Your task to perform on an android device: Open maps Image 0: 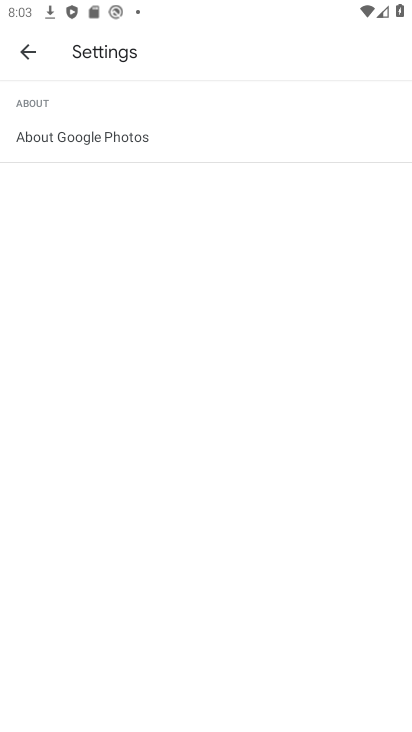
Step 0: press home button
Your task to perform on an android device: Open maps Image 1: 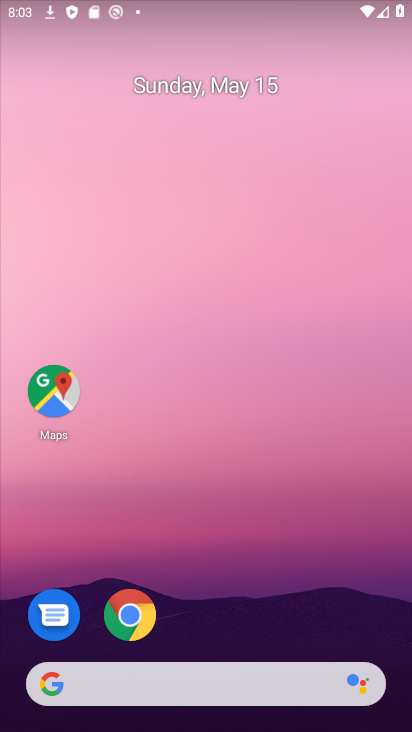
Step 1: click (76, 369)
Your task to perform on an android device: Open maps Image 2: 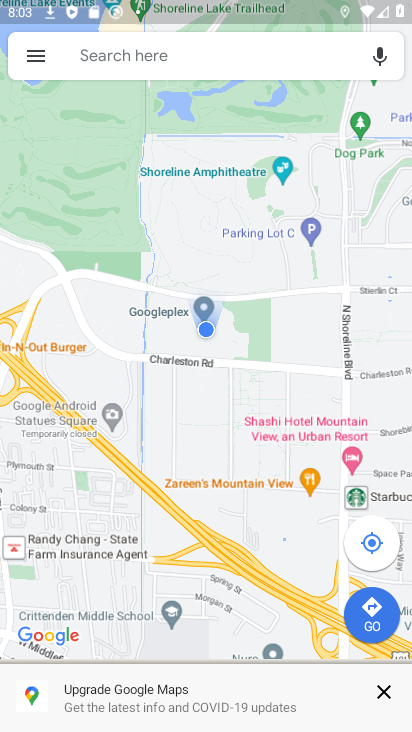
Step 2: task complete